Your task to perform on an android device: set an alarm Image 0: 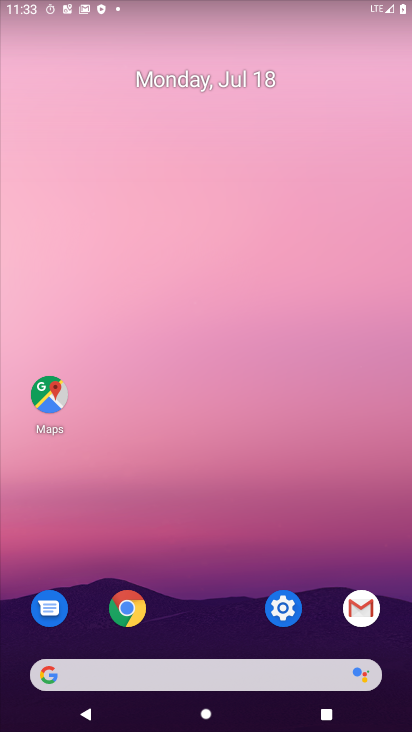
Step 0: click (263, 224)
Your task to perform on an android device: set an alarm Image 1: 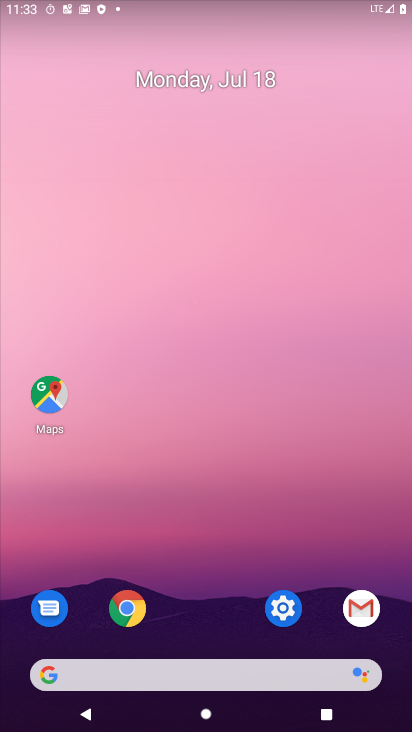
Step 1: drag from (281, 694) to (273, 76)
Your task to perform on an android device: set an alarm Image 2: 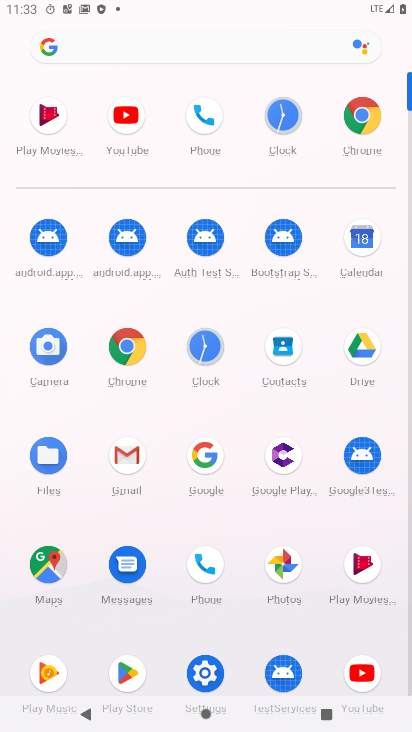
Step 2: click (211, 354)
Your task to perform on an android device: set an alarm Image 3: 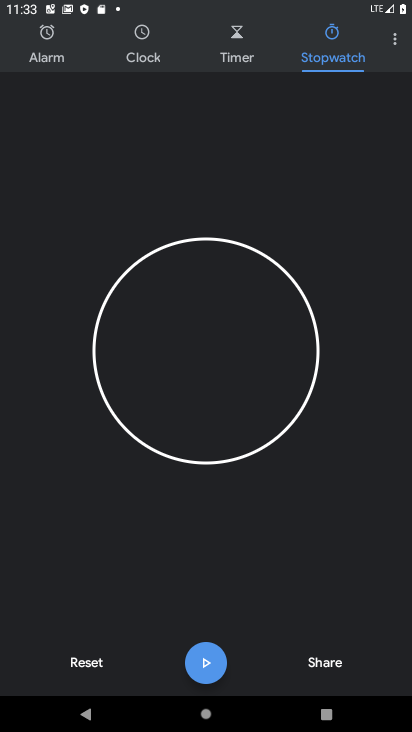
Step 3: click (395, 43)
Your task to perform on an android device: set an alarm Image 4: 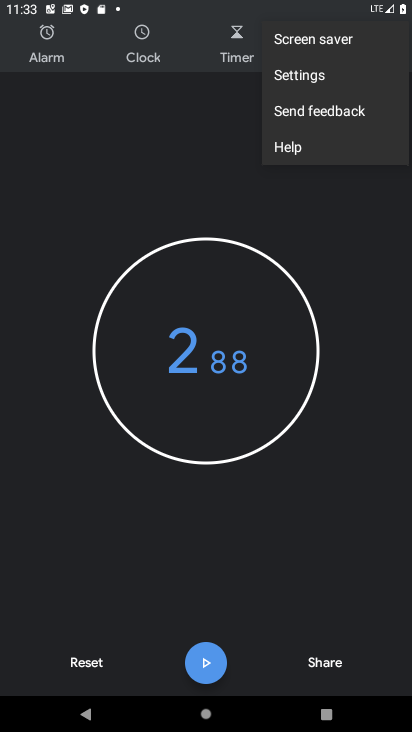
Step 4: click (297, 75)
Your task to perform on an android device: set an alarm Image 5: 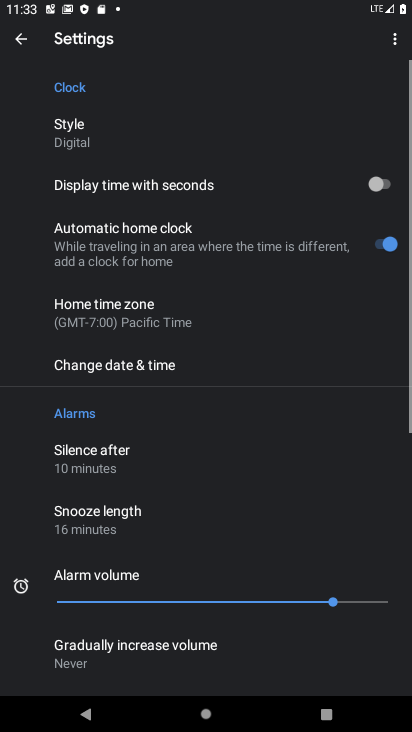
Step 5: click (25, 50)
Your task to perform on an android device: set an alarm Image 6: 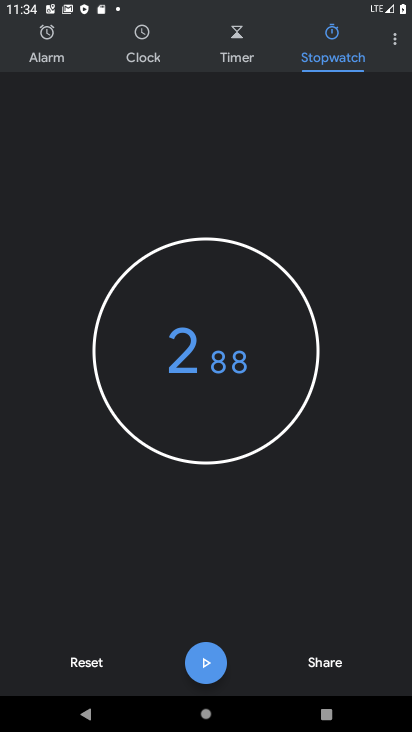
Step 6: click (47, 63)
Your task to perform on an android device: set an alarm Image 7: 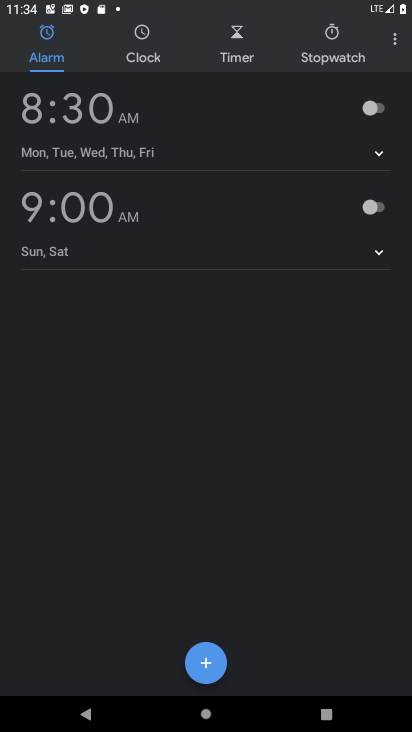
Step 7: click (365, 99)
Your task to perform on an android device: set an alarm Image 8: 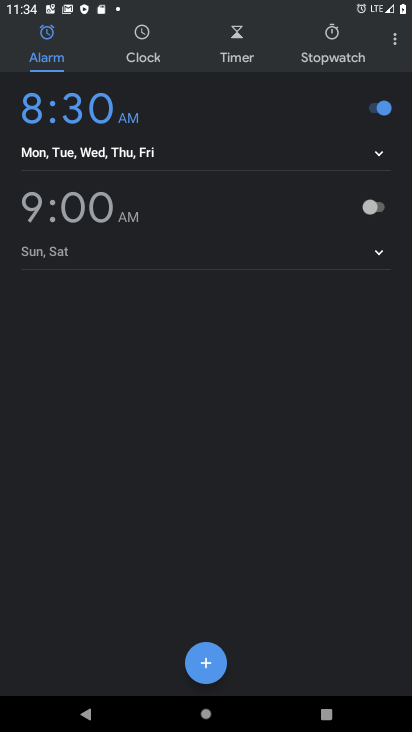
Step 8: task complete